Your task to perform on an android device: turn off smart reply in the gmail app Image 0: 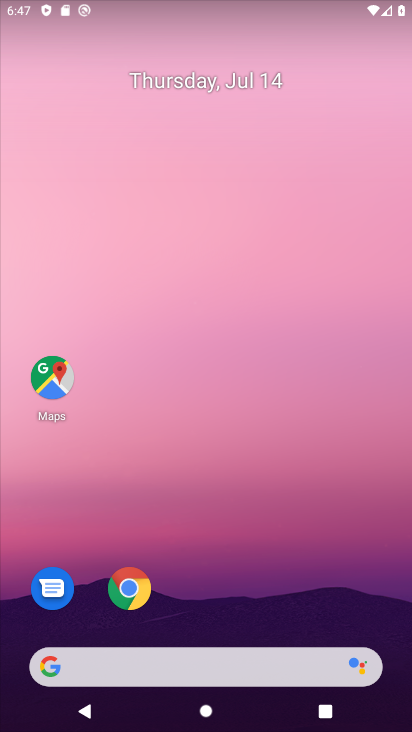
Step 0: drag from (409, 691) to (285, 7)
Your task to perform on an android device: turn off smart reply in the gmail app Image 1: 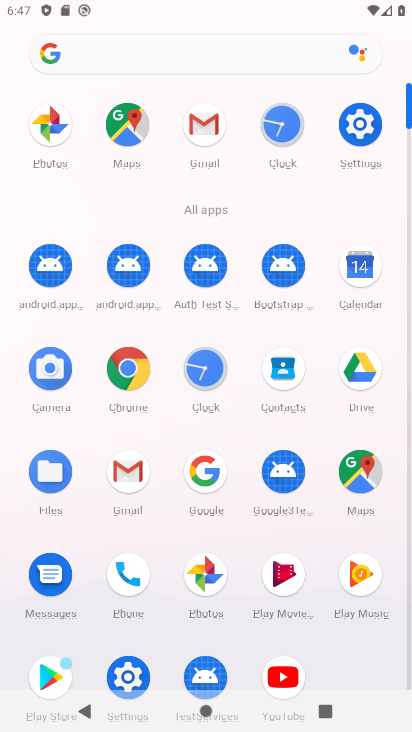
Step 1: click (191, 105)
Your task to perform on an android device: turn off smart reply in the gmail app Image 2: 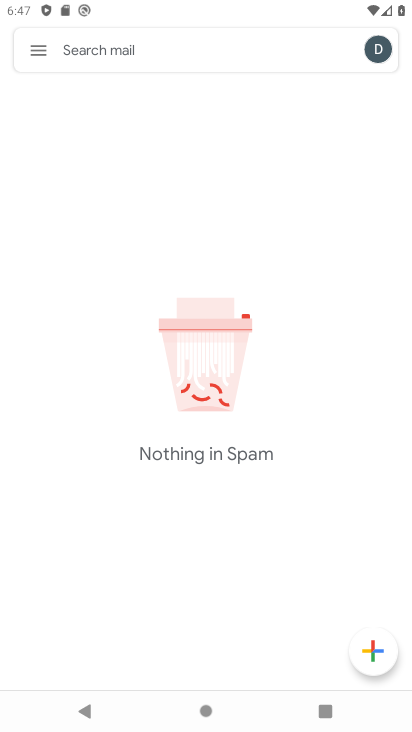
Step 2: click (36, 50)
Your task to perform on an android device: turn off smart reply in the gmail app Image 3: 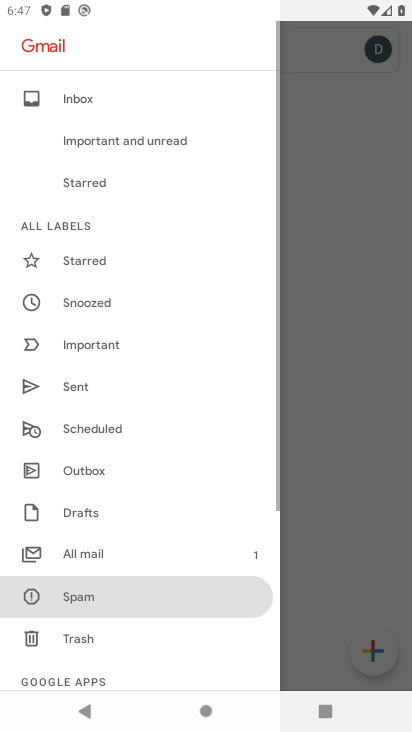
Step 3: drag from (48, 635) to (60, 0)
Your task to perform on an android device: turn off smart reply in the gmail app Image 4: 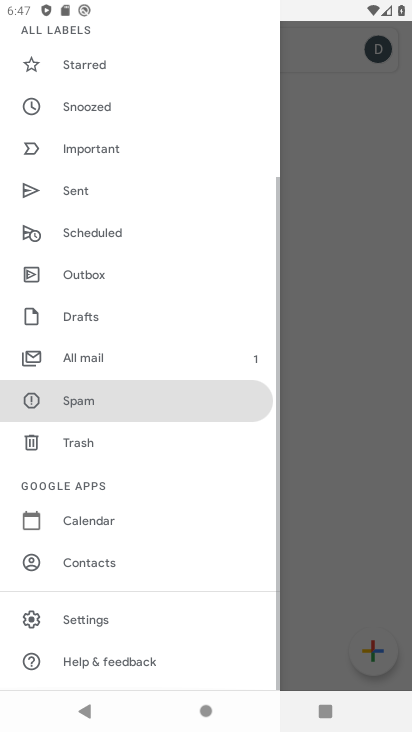
Step 4: click (111, 615)
Your task to perform on an android device: turn off smart reply in the gmail app Image 5: 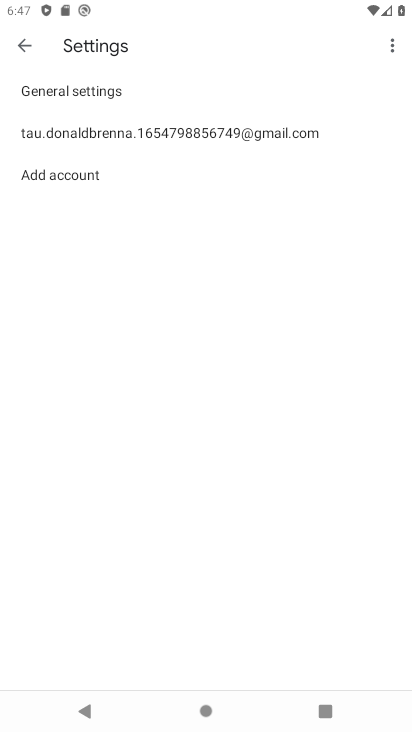
Step 5: click (111, 117)
Your task to perform on an android device: turn off smart reply in the gmail app Image 6: 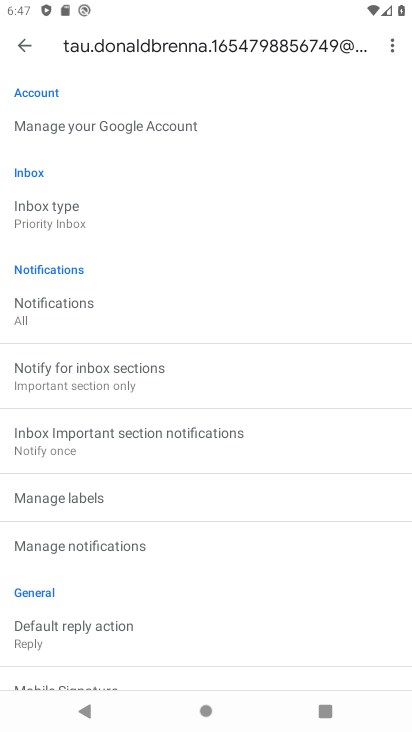
Step 6: drag from (51, 707) to (125, 62)
Your task to perform on an android device: turn off smart reply in the gmail app Image 7: 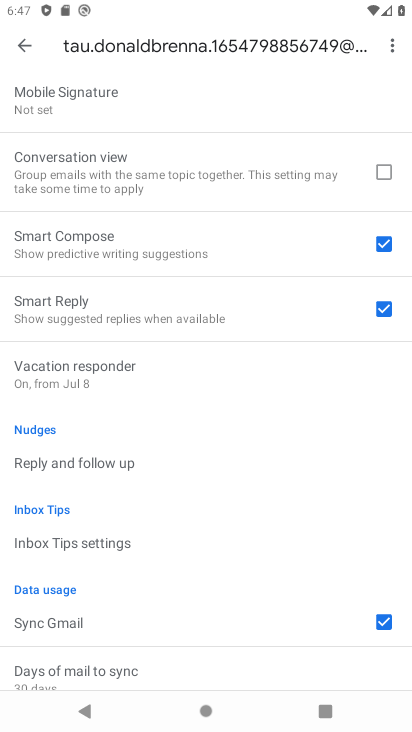
Step 7: click (263, 296)
Your task to perform on an android device: turn off smart reply in the gmail app Image 8: 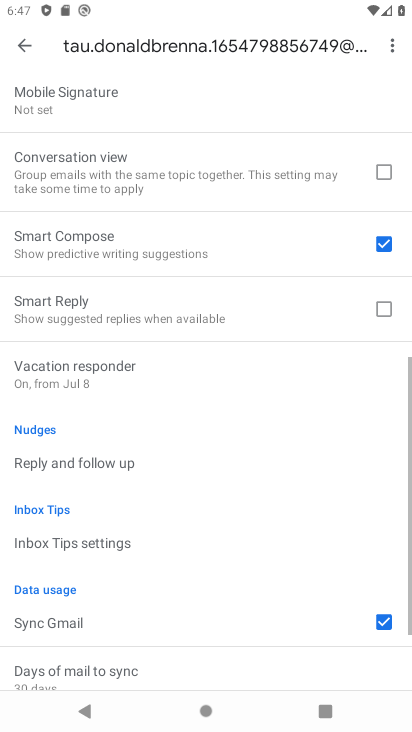
Step 8: task complete